Your task to perform on an android device: Open ESPN.com Image 0: 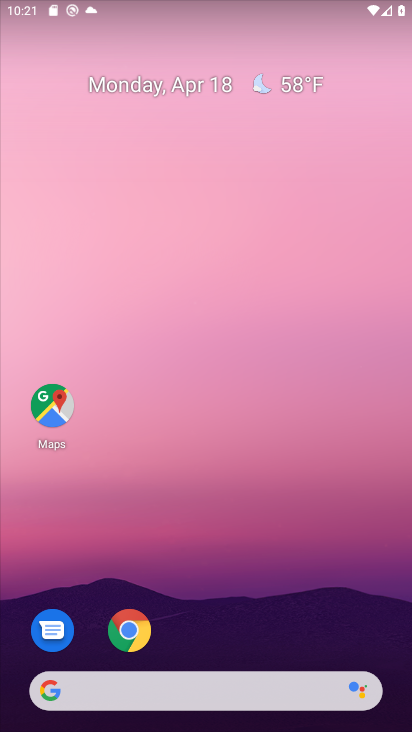
Step 0: click (129, 636)
Your task to perform on an android device: Open ESPN.com Image 1: 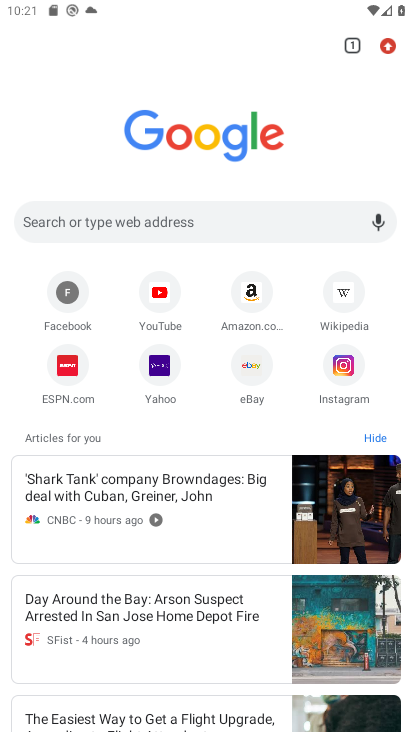
Step 1: click (62, 364)
Your task to perform on an android device: Open ESPN.com Image 2: 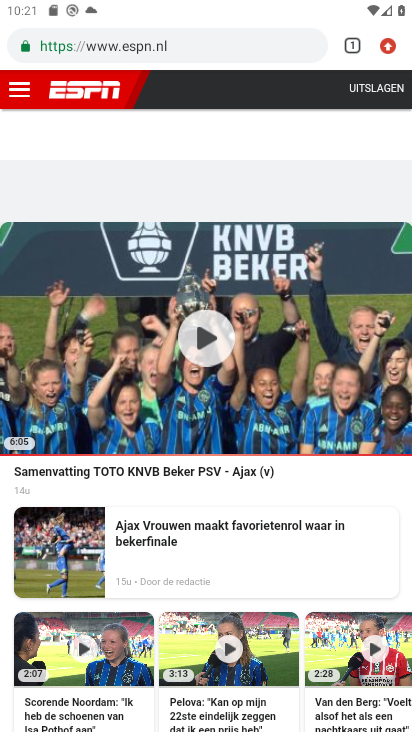
Step 2: task complete